Your task to perform on an android device: open sync settings in chrome Image 0: 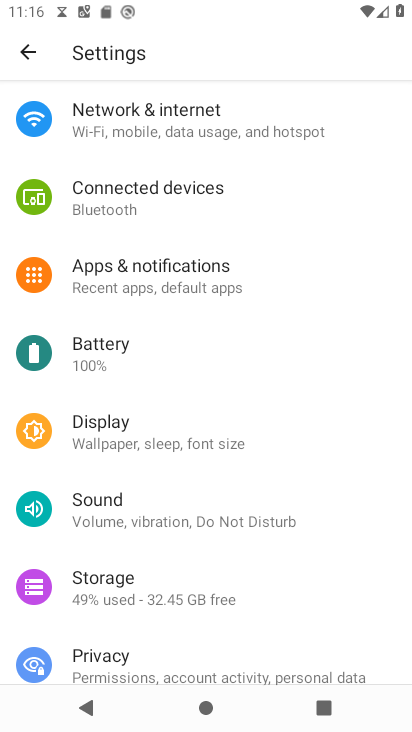
Step 0: press home button
Your task to perform on an android device: open sync settings in chrome Image 1: 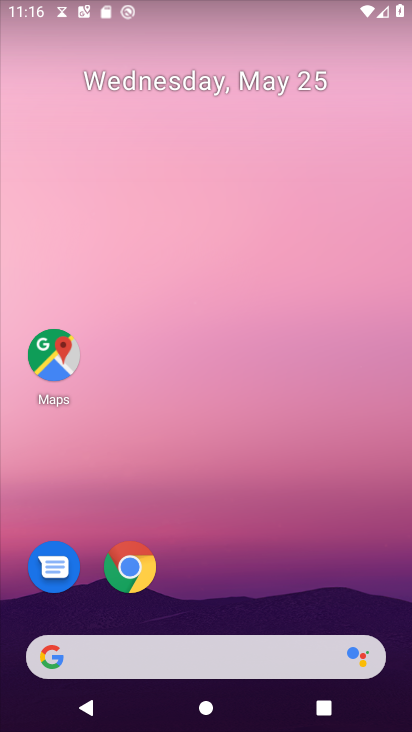
Step 1: click (124, 572)
Your task to perform on an android device: open sync settings in chrome Image 2: 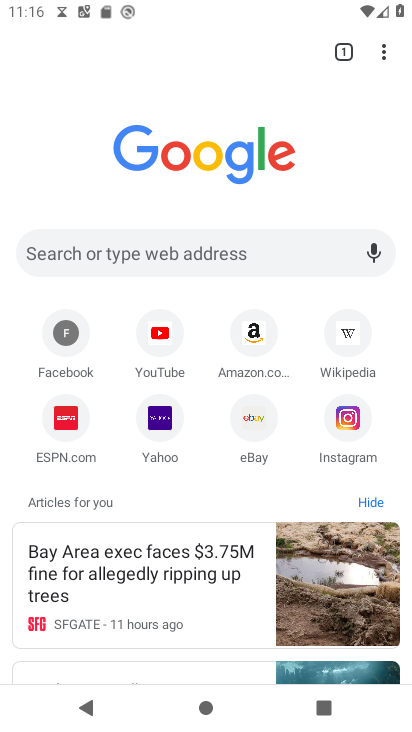
Step 2: click (390, 46)
Your task to perform on an android device: open sync settings in chrome Image 3: 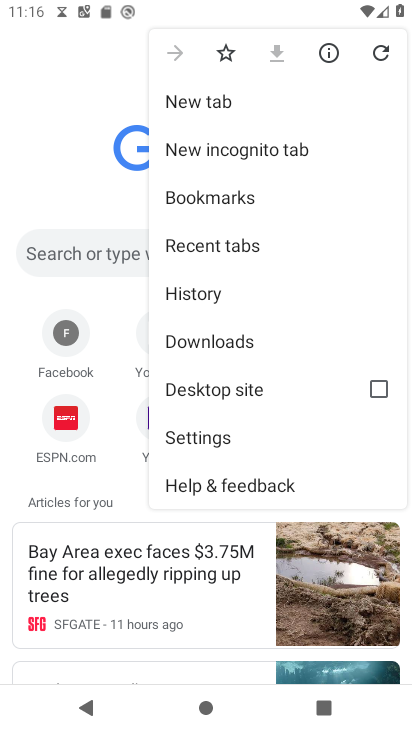
Step 3: click (210, 431)
Your task to perform on an android device: open sync settings in chrome Image 4: 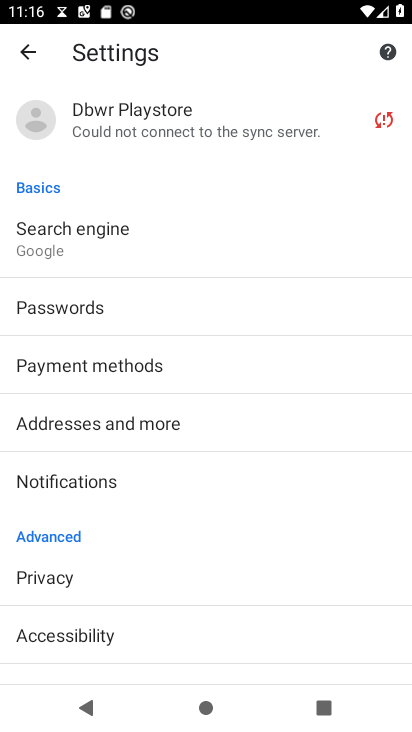
Step 4: click (181, 133)
Your task to perform on an android device: open sync settings in chrome Image 5: 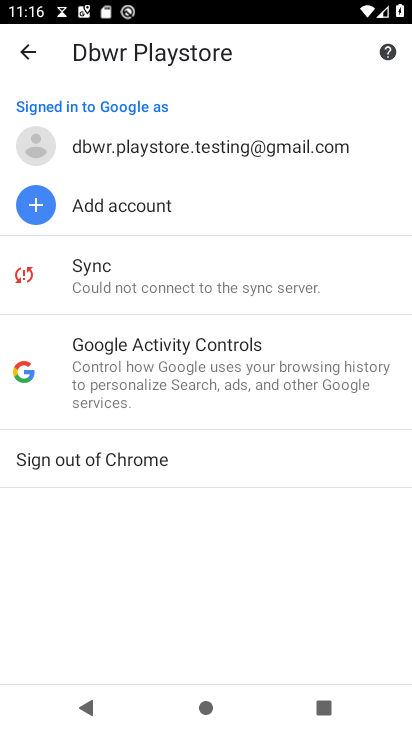
Step 5: click (160, 272)
Your task to perform on an android device: open sync settings in chrome Image 6: 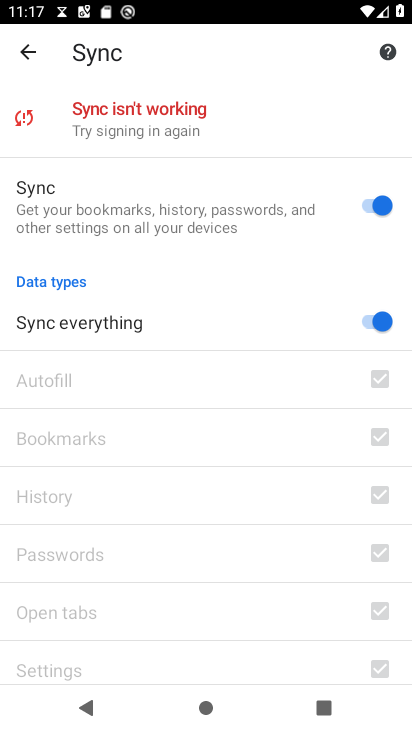
Step 6: task complete